Your task to perform on an android device: set an alarm Image 0: 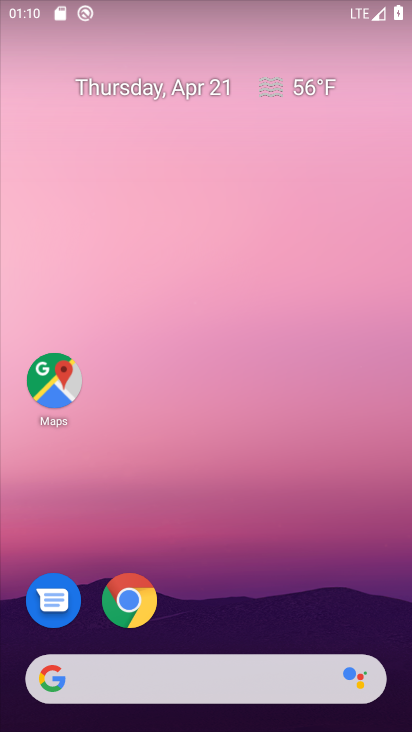
Step 0: drag from (272, 628) to (337, 132)
Your task to perform on an android device: set an alarm Image 1: 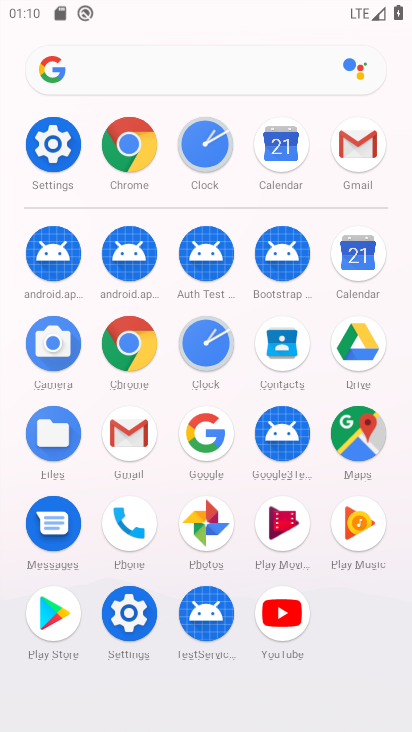
Step 1: click (199, 138)
Your task to perform on an android device: set an alarm Image 2: 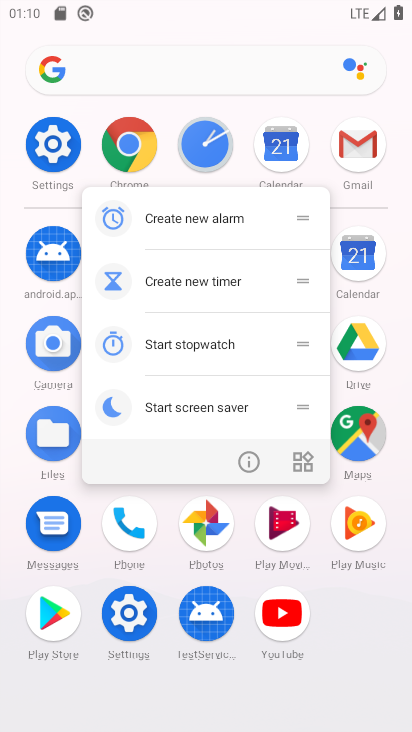
Step 2: click (199, 138)
Your task to perform on an android device: set an alarm Image 3: 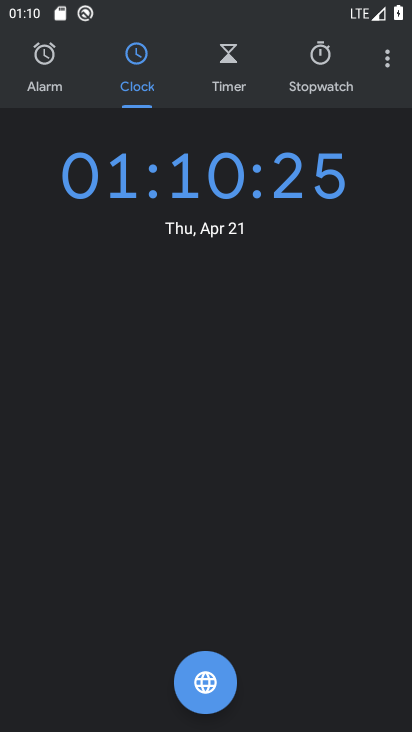
Step 3: click (48, 78)
Your task to perform on an android device: set an alarm Image 4: 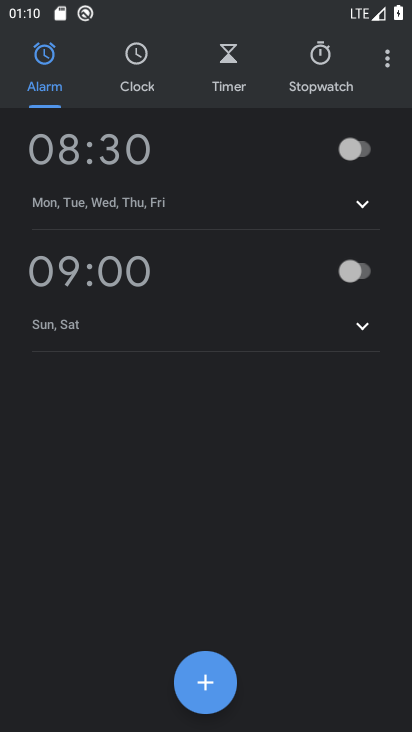
Step 4: click (204, 676)
Your task to perform on an android device: set an alarm Image 5: 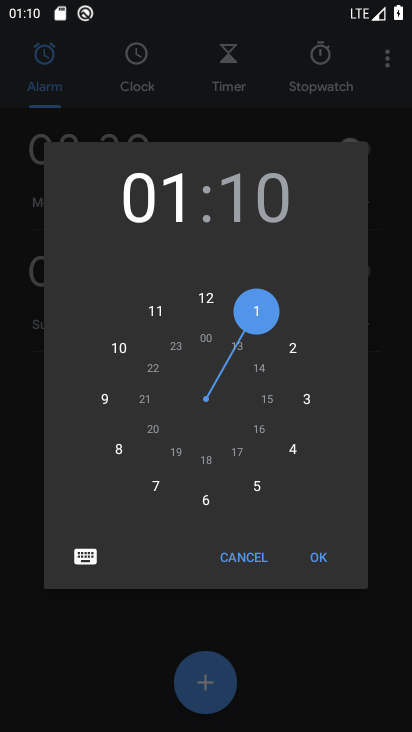
Step 5: click (318, 560)
Your task to perform on an android device: set an alarm Image 6: 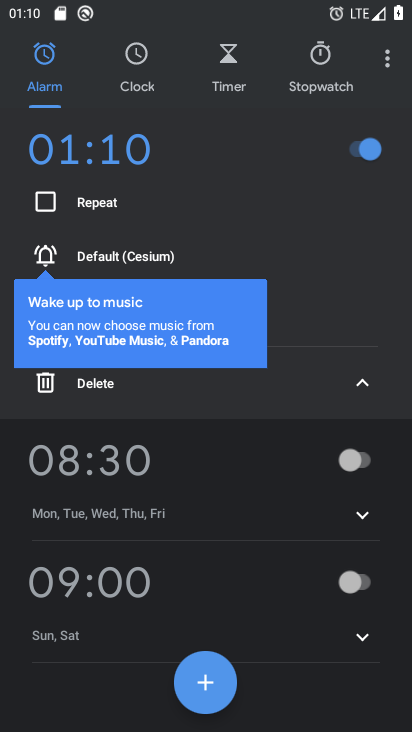
Step 6: task complete